Your task to perform on an android device: Open the Play Movies app and select the watchlist tab. Image 0: 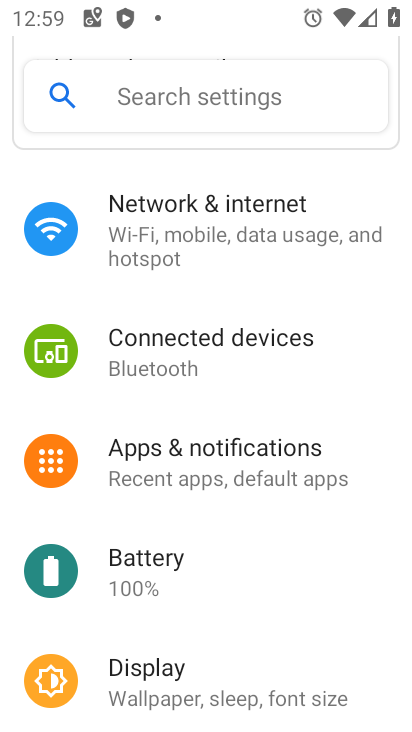
Step 0: press back button
Your task to perform on an android device: Open the Play Movies app and select the watchlist tab. Image 1: 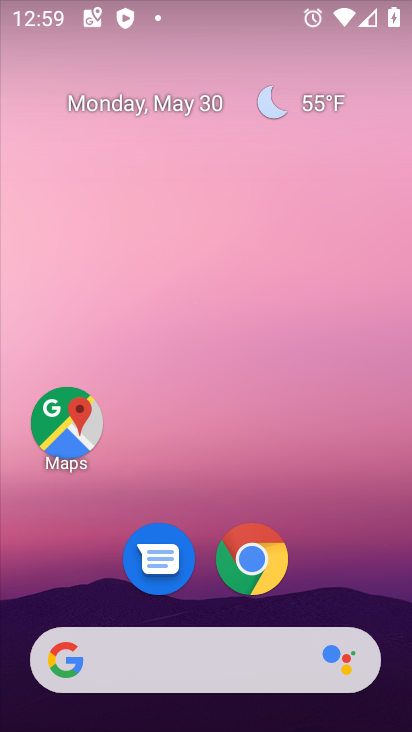
Step 1: drag from (160, 524) to (239, 79)
Your task to perform on an android device: Open the Play Movies app and select the watchlist tab. Image 2: 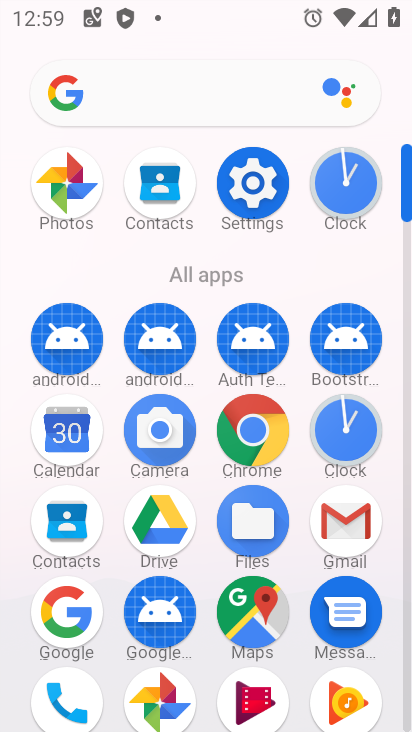
Step 2: drag from (227, 599) to (282, 226)
Your task to perform on an android device: Open the Play Movies app and select the watchlist tab. Image 3: 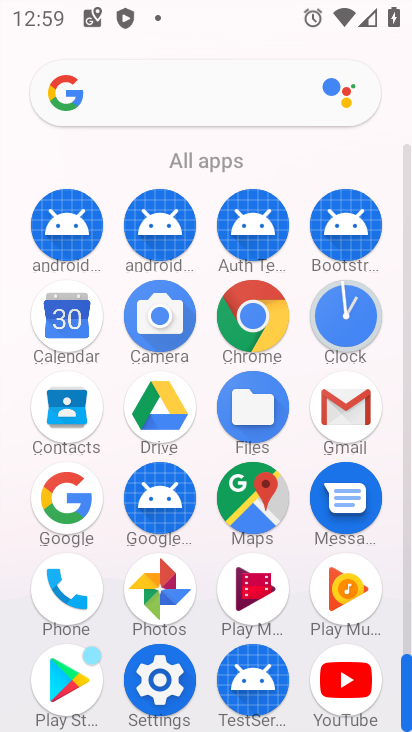
Step 3: click (243, 594)
Your task to perform on an android device: Open the Play Movies app and select the watchlist tab. Image 4: 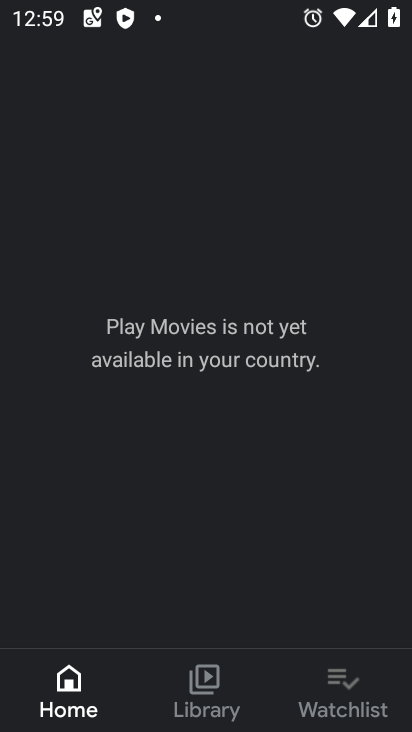
Step 4: click (353, 703)
Your task to perform on an android device: Open the Play Movies app and select the watchlist tab. Image 5: 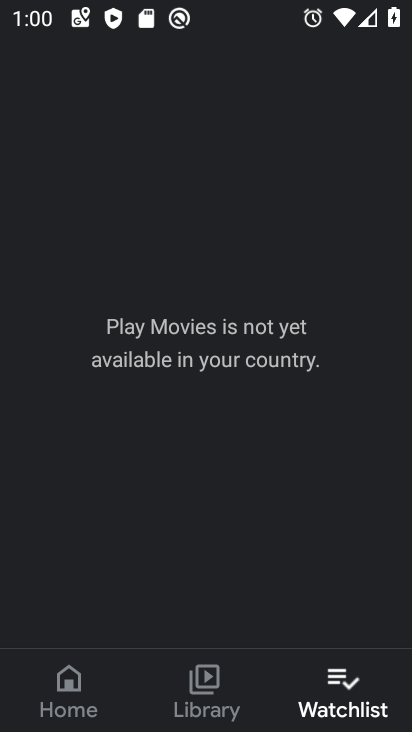
Step 5: task complete